Your task to perform on an android device: open app "VLC for Android" (install if not already installed) Image 0: 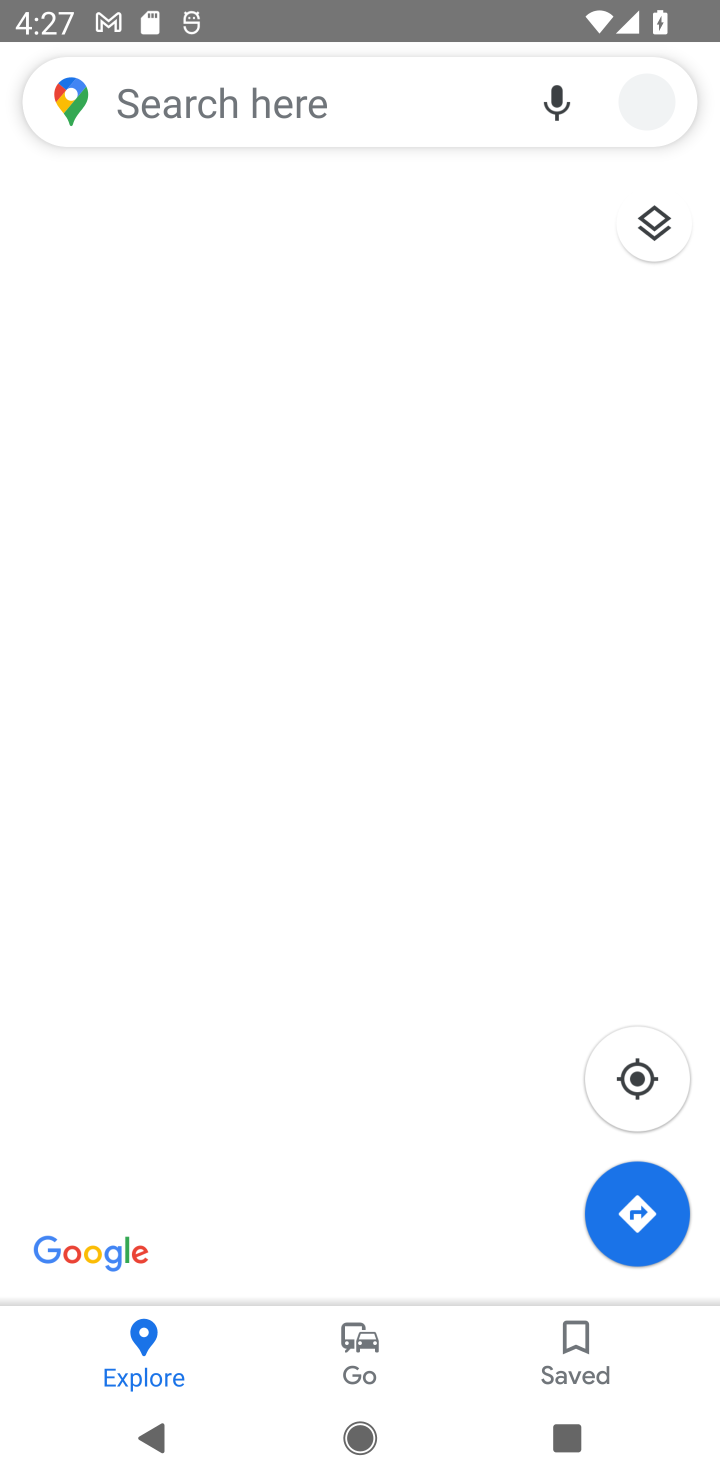
Step 0: press home button
Your task to perform on an android device: open app "VLC for Android" (install if not already installed) Image 1: 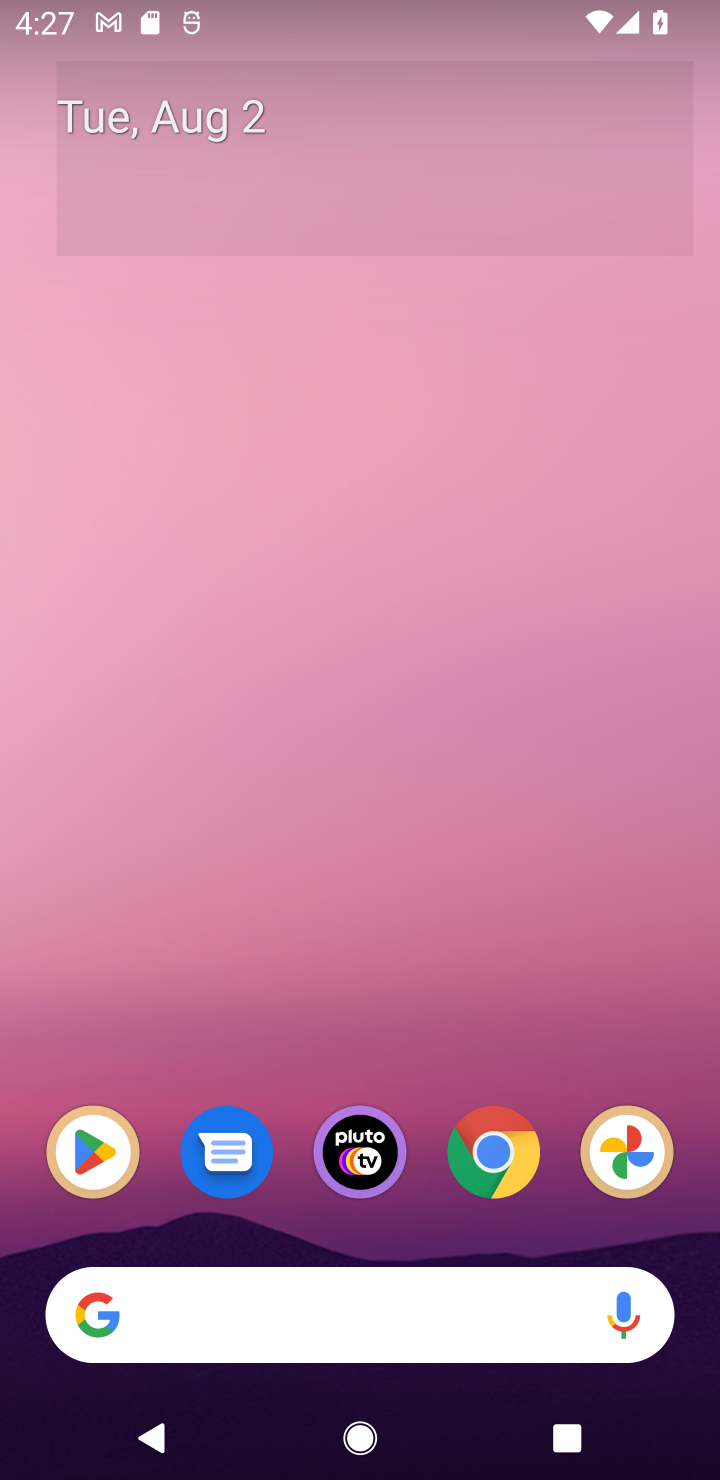
Step 1: drag from (416, 985) to (486, 0)
Your task to perform on an android device: open app "VLC for Android" (install if not already installed) Image 2: 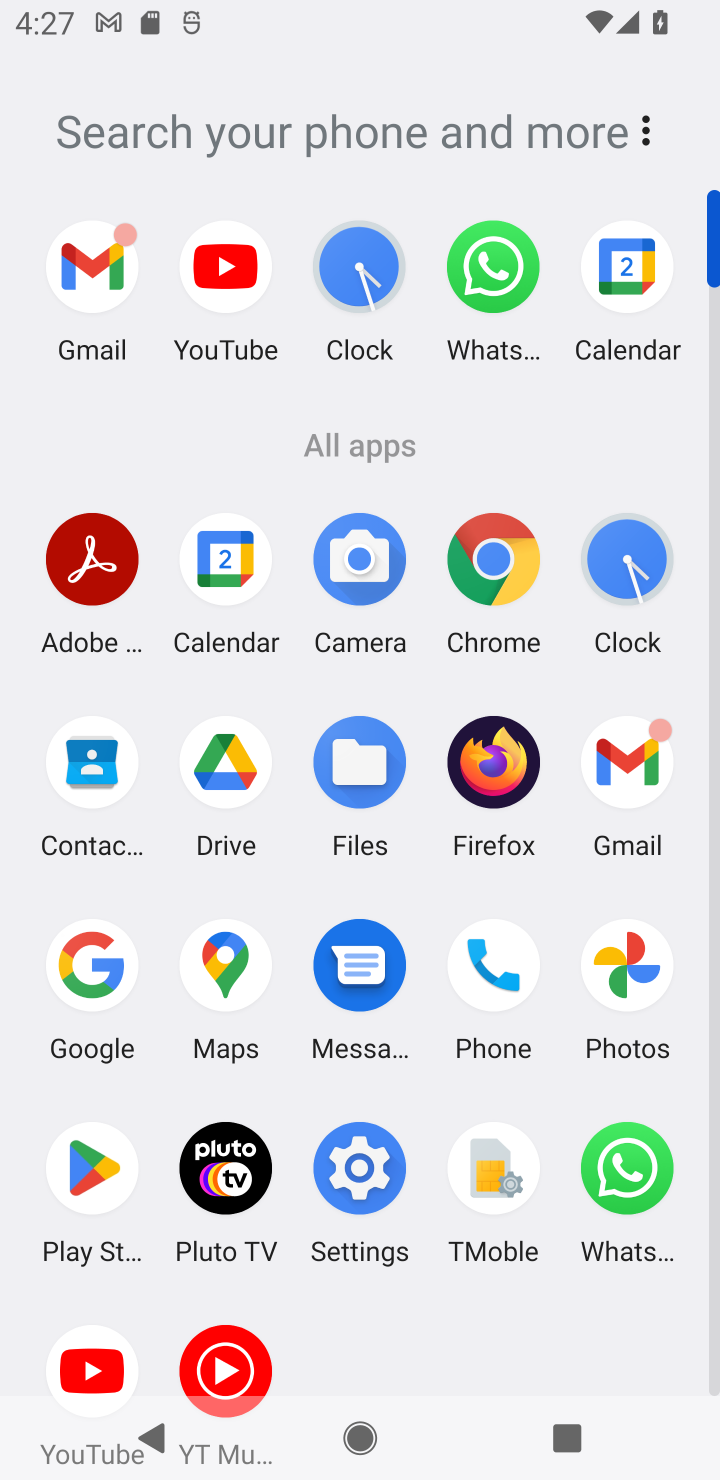
Step 2: click (103, 1160)
Your task to perform on an android device: open app "VLC for Android" (install if not already installed) Image 3: 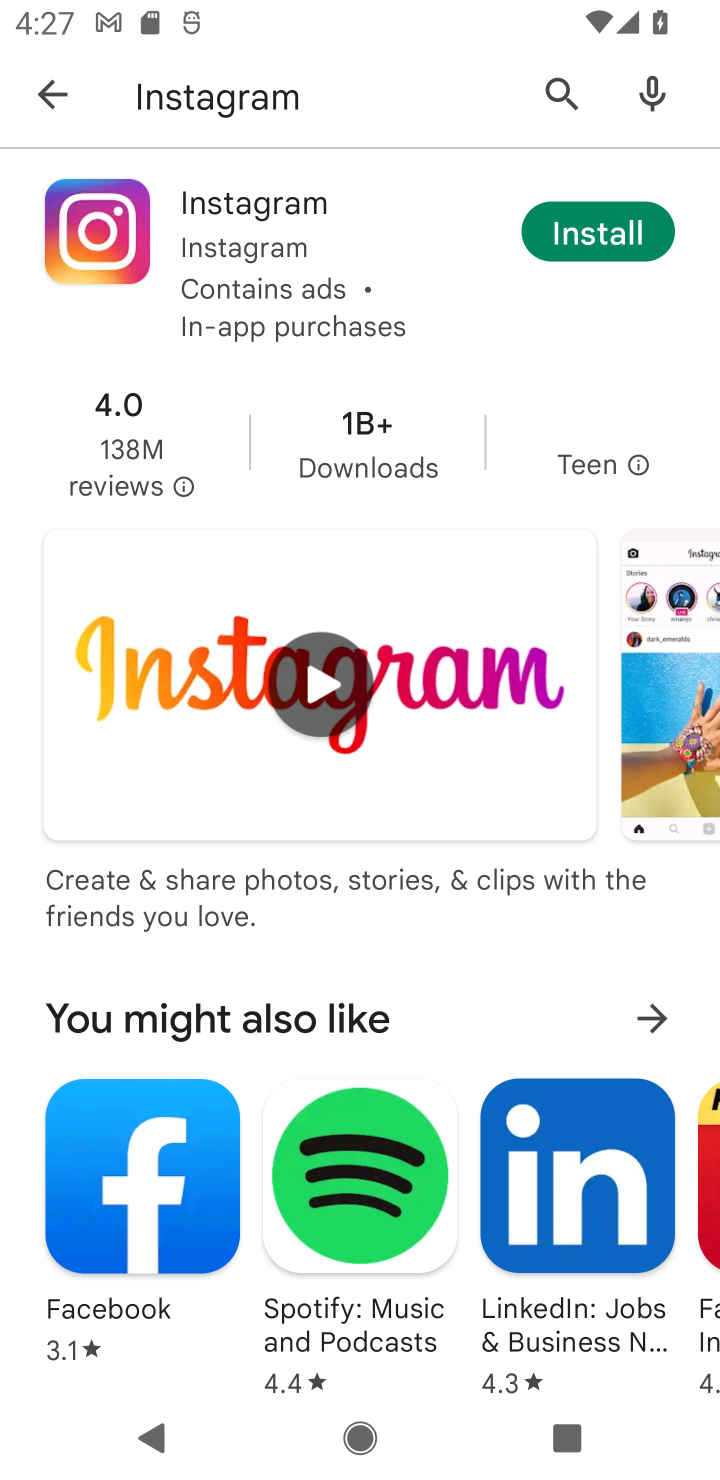
Step 3: click (417, 96)
Your task to perform on an android device: open app "VLC for Android" (install if not already installed) Image 4: 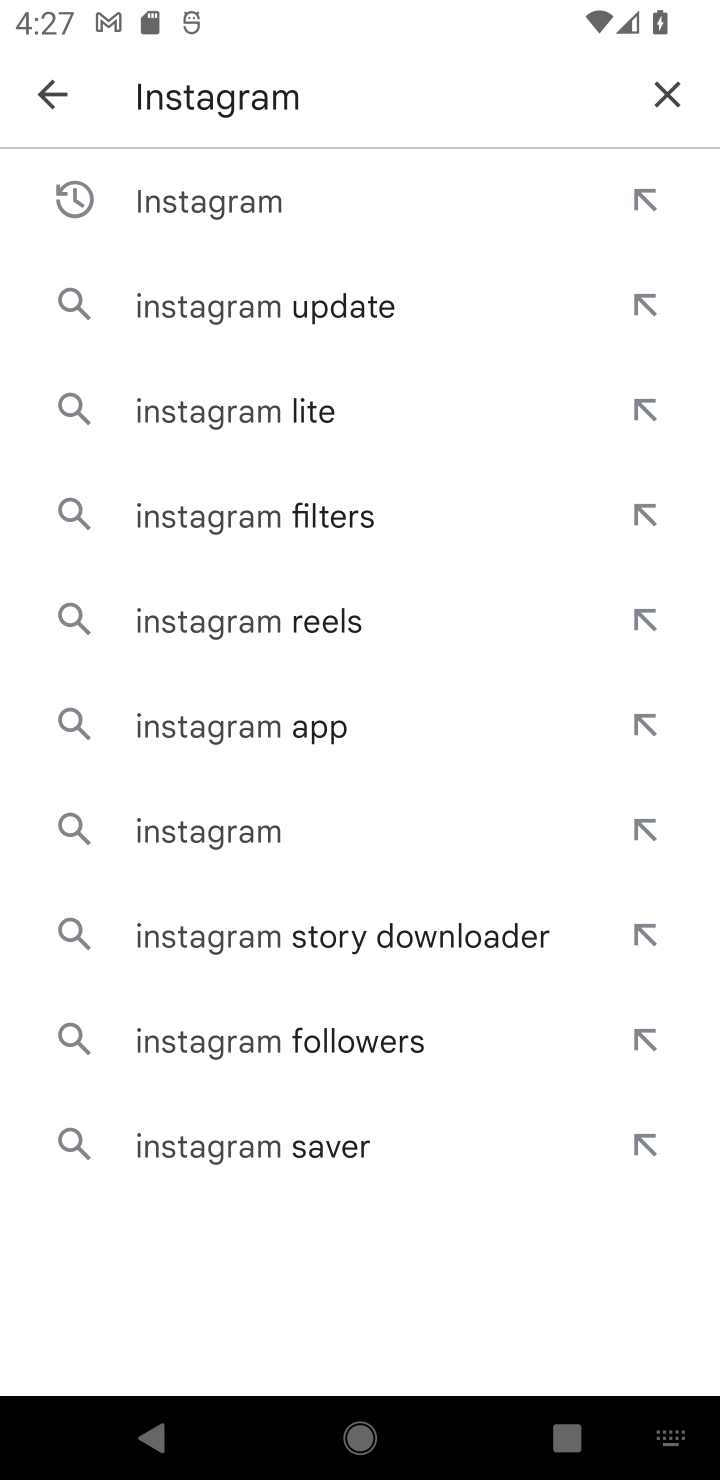
Step 4: click (674, 88)
Your task to perform on an android device: open app "VLC for Android" (install if not already installed) Image 5: 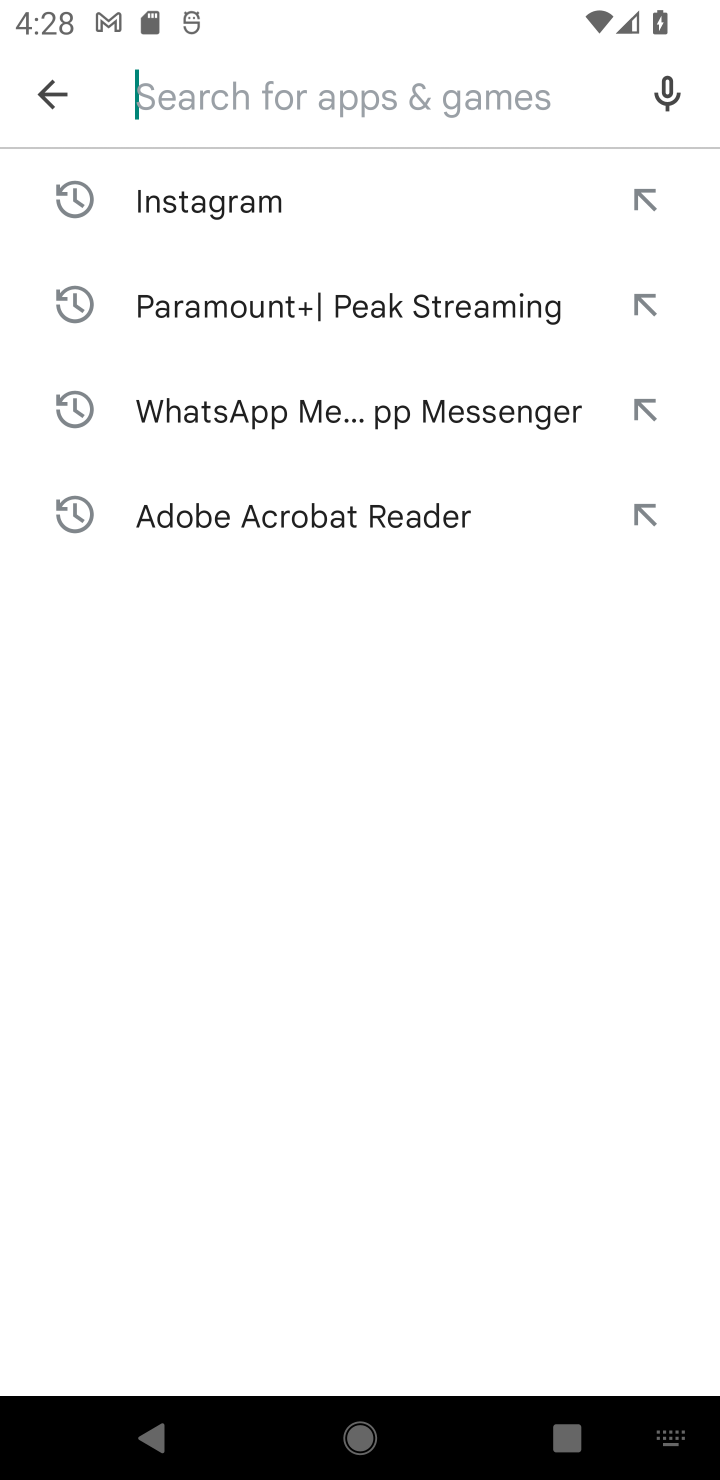
Step 5: type "VLC for Android"
Your task to perform on an android device: open app "VLC for Android" (install if not already installed) Image 6: 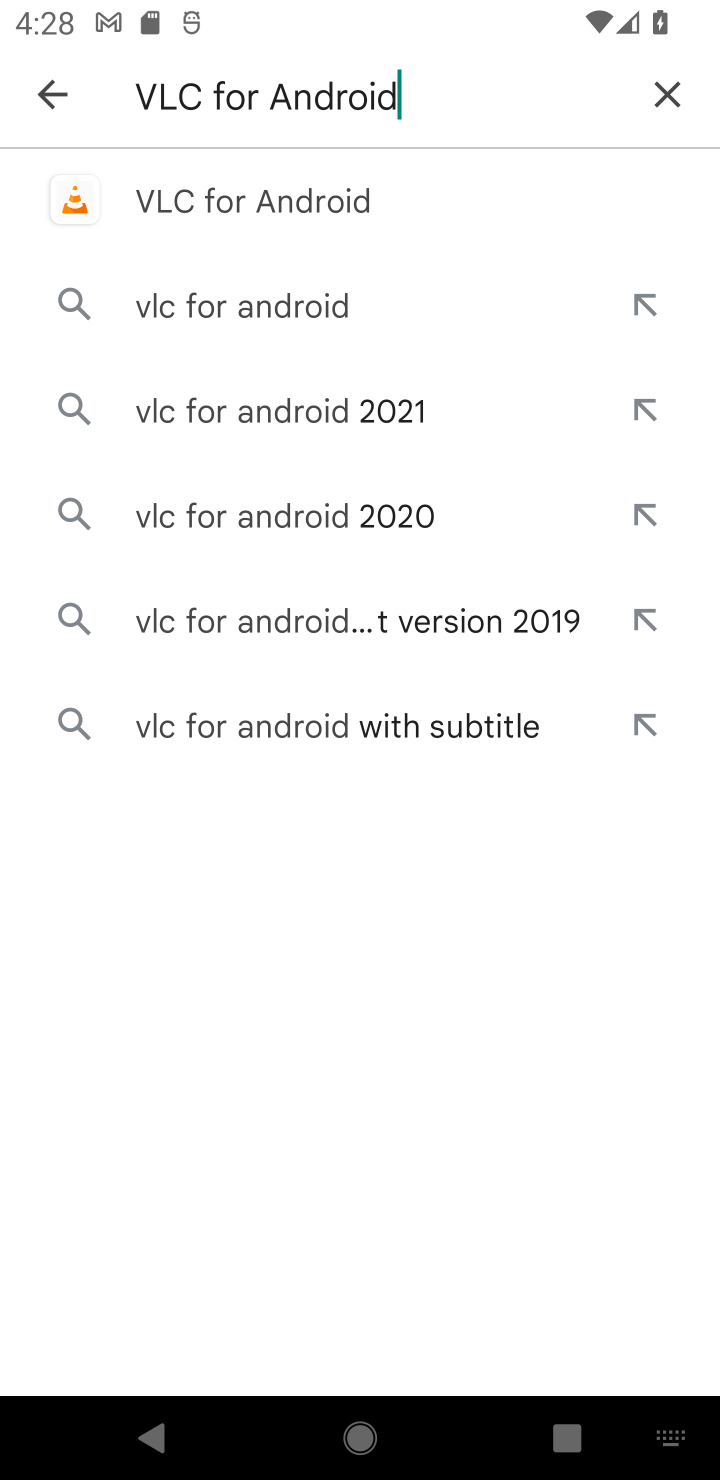
Step 6: press enter
Your task to perform on an android device: open app "VLC for Android" (install if not already installed) Image 7: 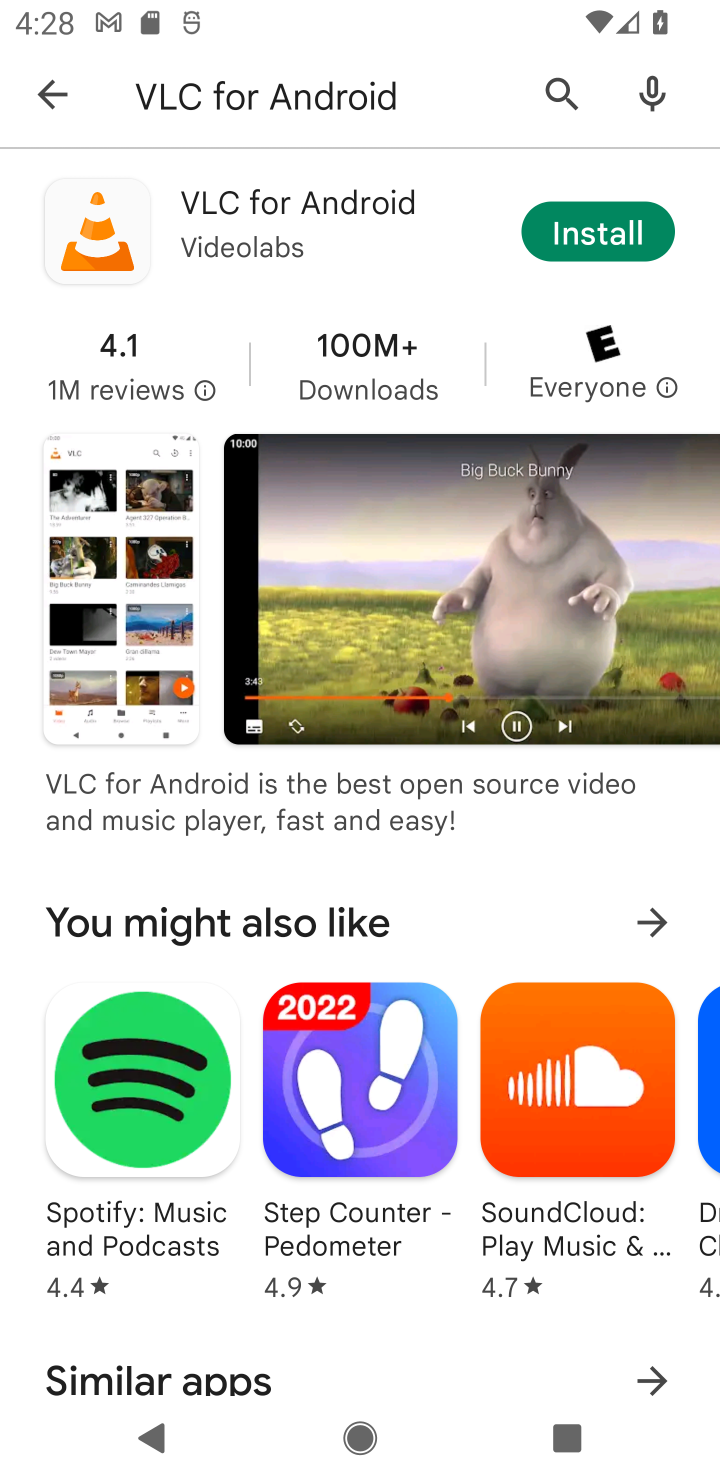
Step 7: click (344, 242)
Your task to perform on an android device: open app "VLC for Android" (install if not already installed) Image 8: 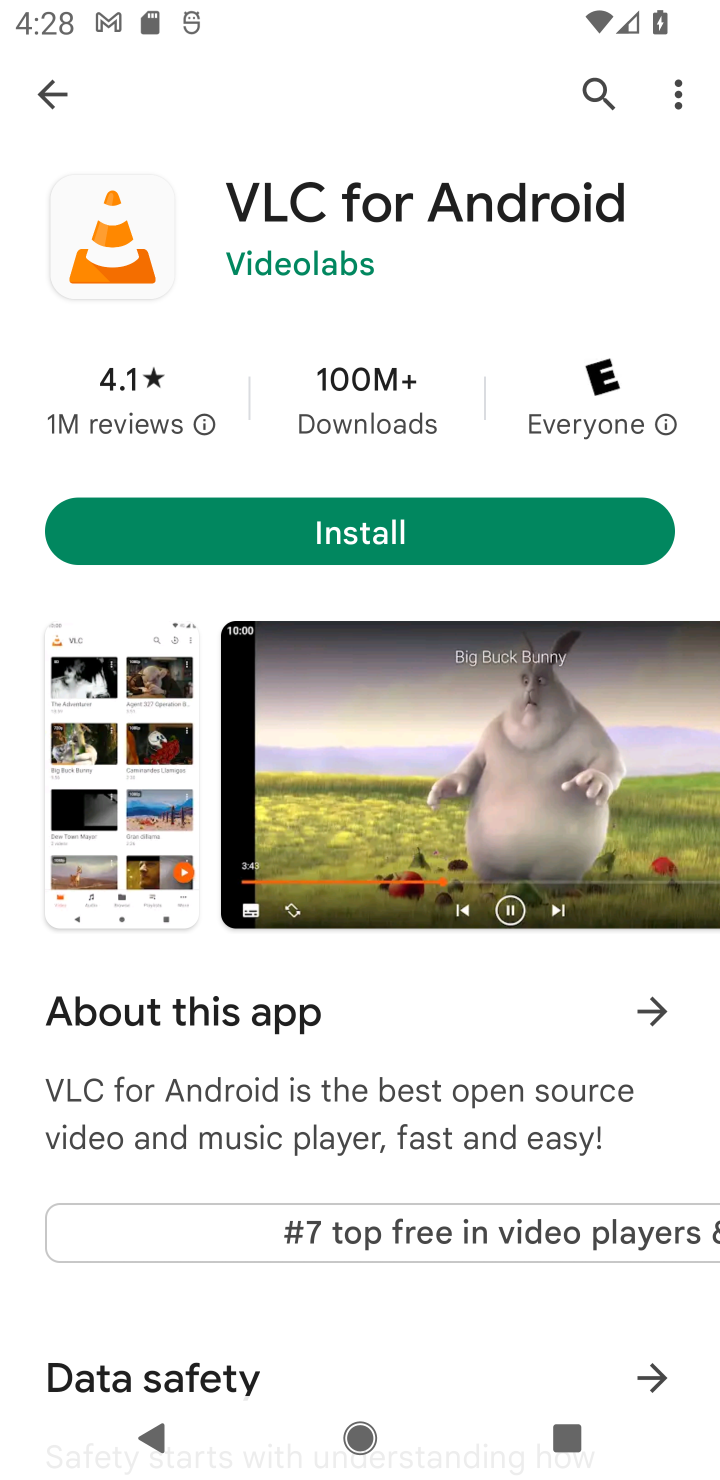
Step 8: click (563, 550)
Your task to perform on an android device: open app "VLC for Android" (install if not already installed) Image 9: 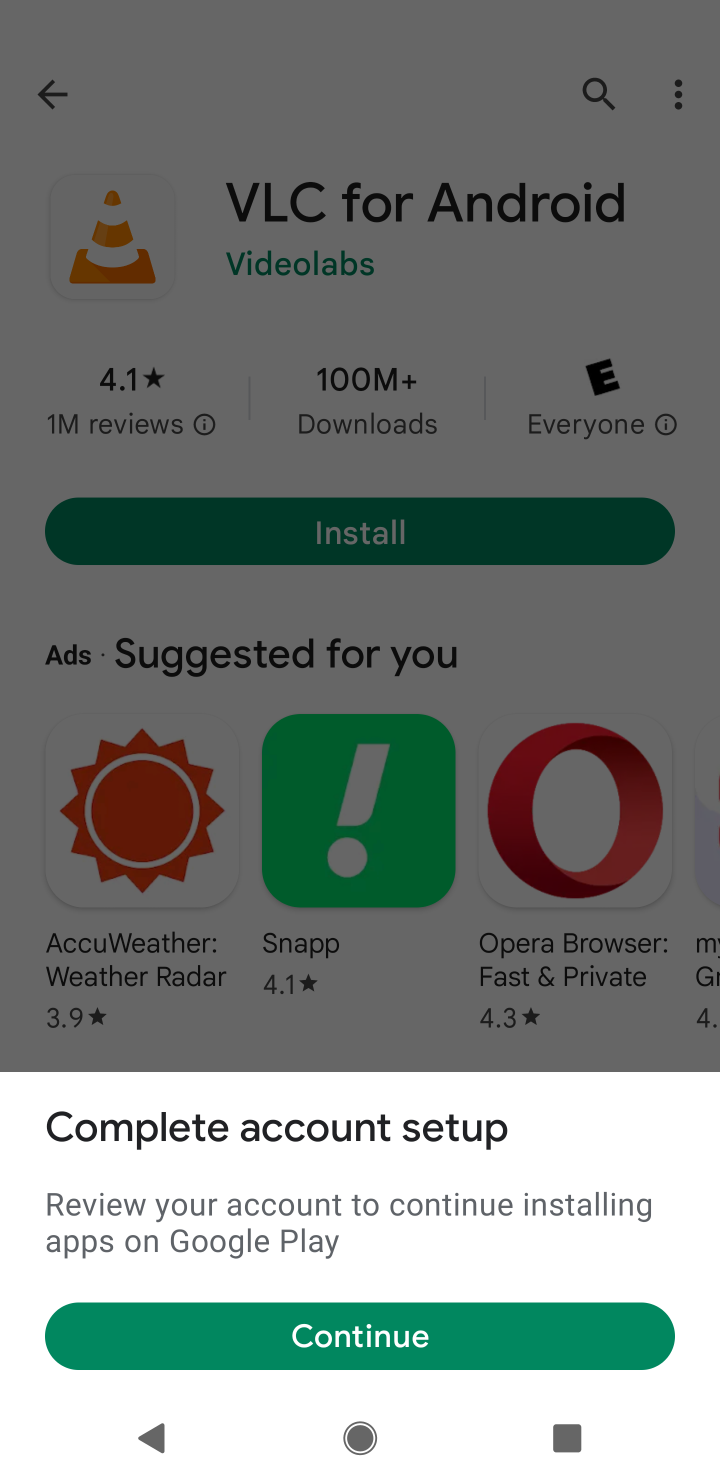
Step 9: click (316, 1325)
Your task to perform on an android device: open app "VLC for Android" (install if not already installed) Image 10: 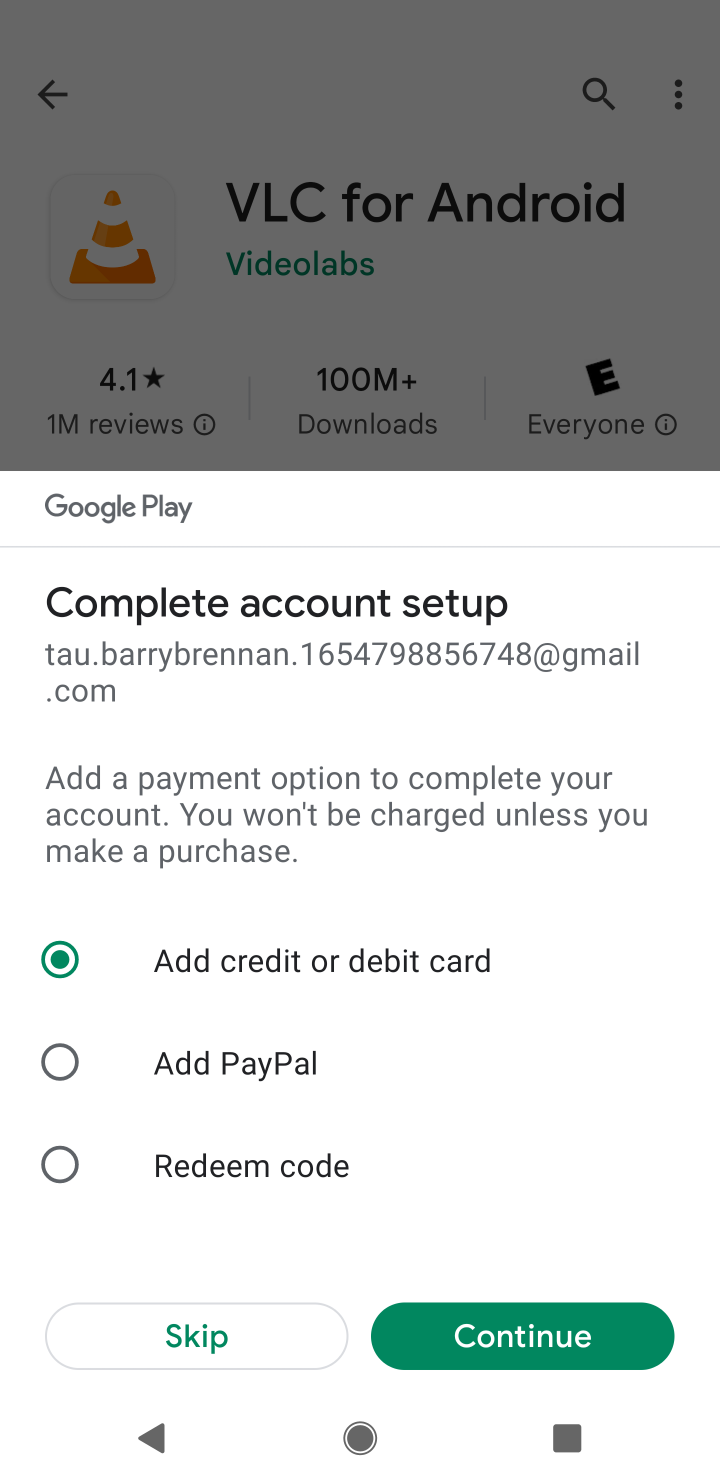
Step 10: click (167, 1317)
Your task to perform on an android device: open app "VLC for Android" (install if not already installed) Image 11: 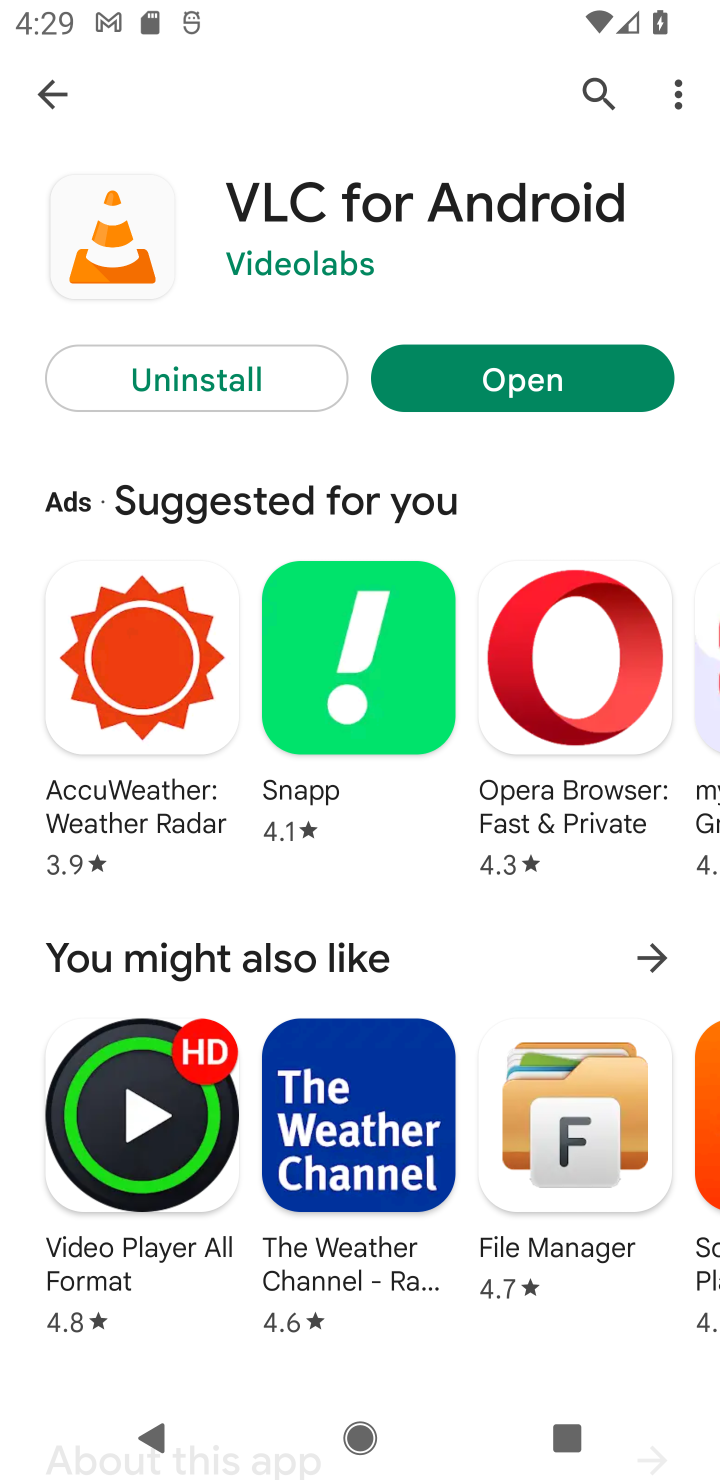
Step 11: click (613, 365)
Your task to perform on an android device: open app "VLC for Android" (install if not already installed) Image 12: 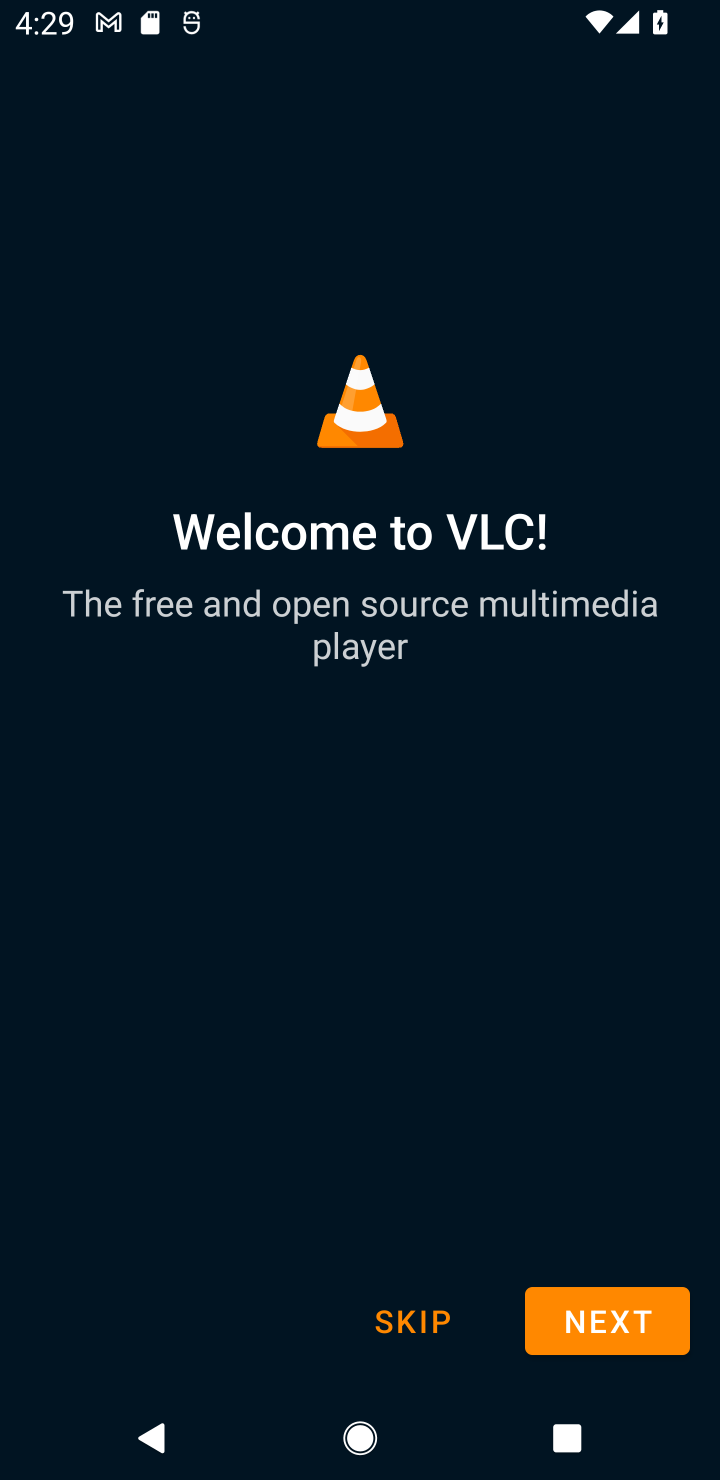
Step 12: task complete